Your task to perform on an android device: Open my contact list Image 0: 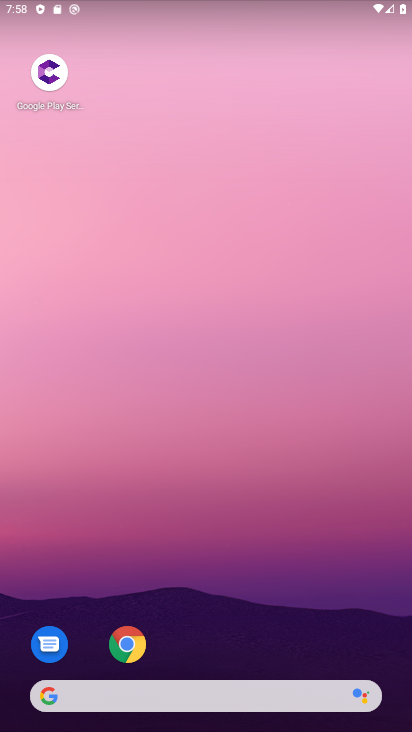
Step 0: drag from (10, 717) to (300, 36)
Your task to perform on an android device: Open my contact list Image 1: 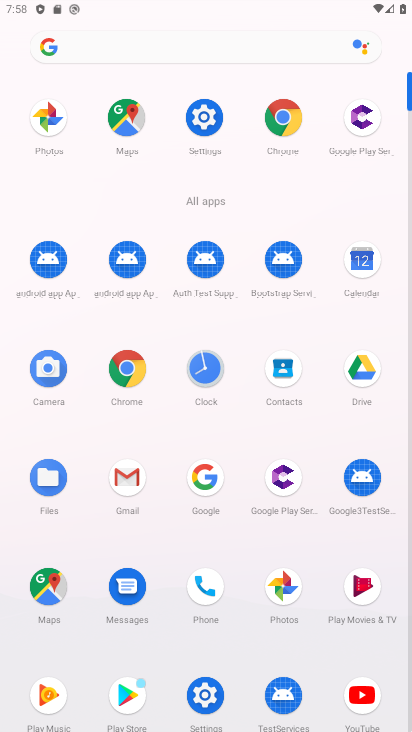
Step 1: click (205, 594)
Your task to perform on an android device: Open my contact list Image 2: 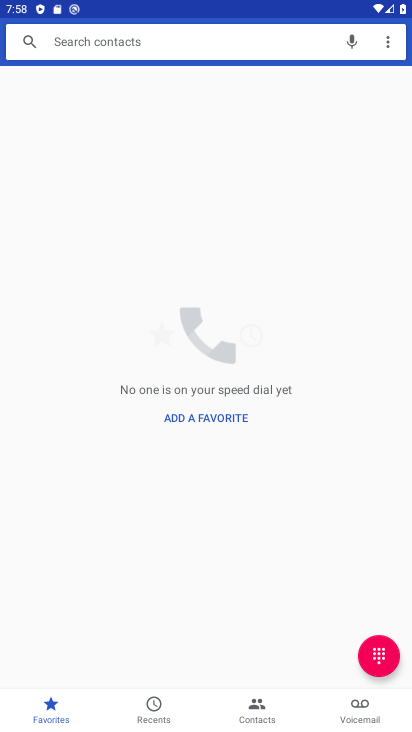
Step 2: click (257, 721)
Your task to perform on an android device: Open my contact list Image 3: 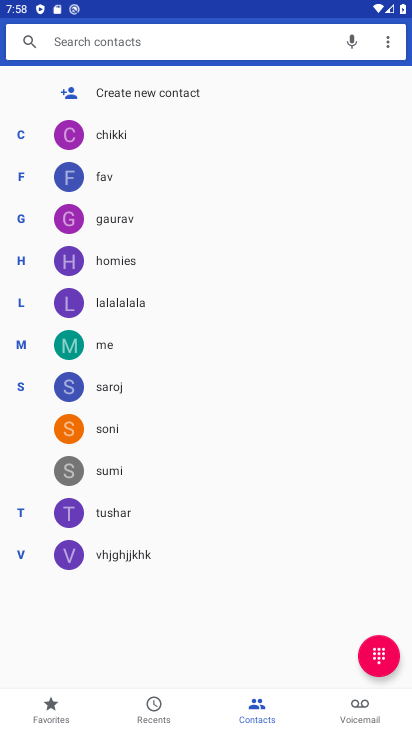
Step 3: task complete